Your task to perform on an android device: turn on data saver in the chrome app Image 0: 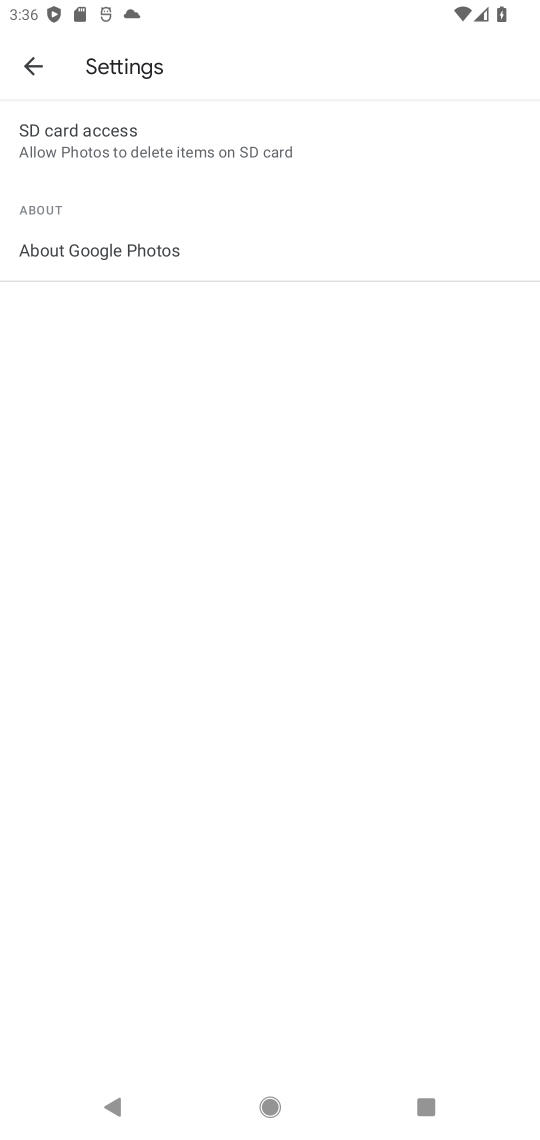
Step 0: press home button
Your task to perform on an android device: turn on data saver in the chrome app Image 1: 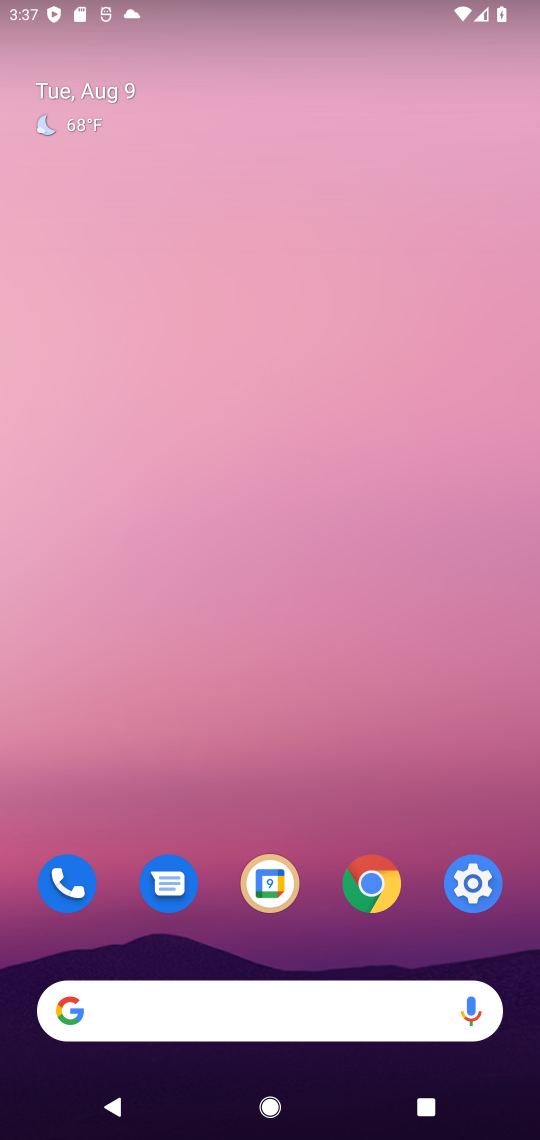
Step 1: click (370, 890)
Your task to perform on an android device: turn on data saver in the chrome app Image 2: 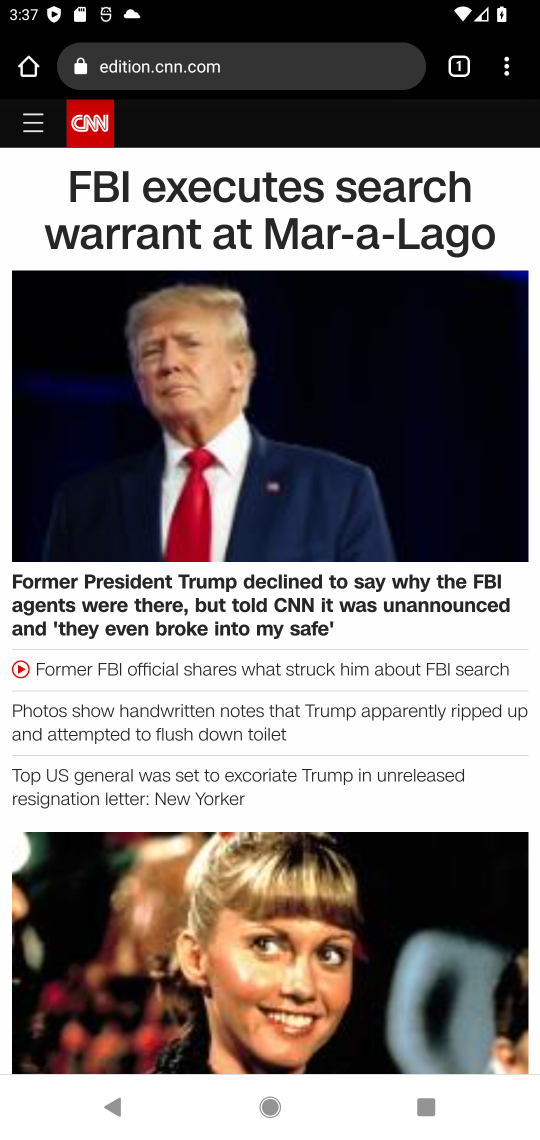
Step 2: click (505, 81)
Your task to perform on an android device: turn on data saver in the chrome app Image 3: 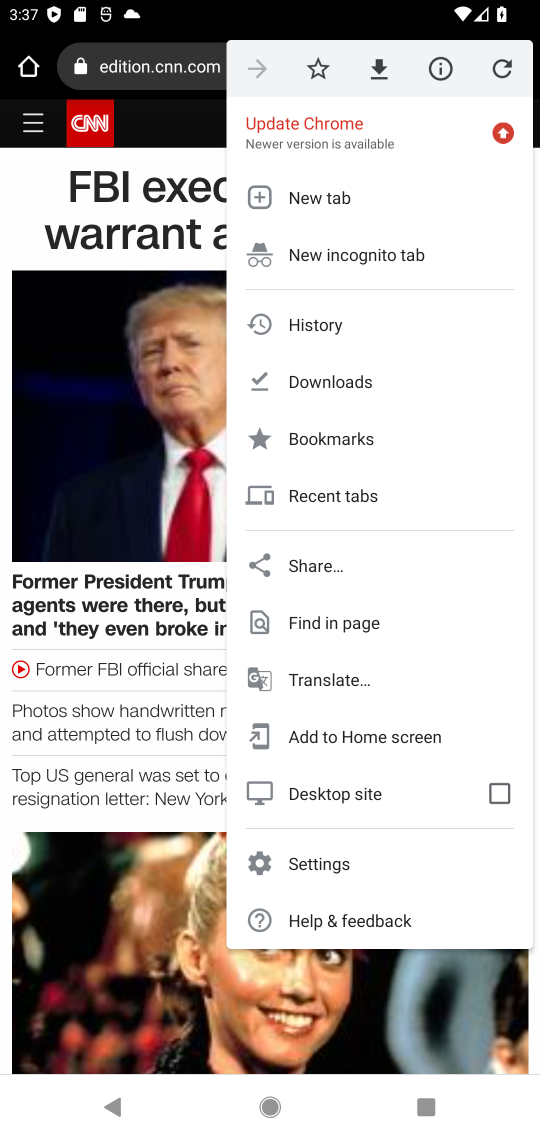
Step 3: click (320, 861)
Your task to perform on an android device: turn on data saver in the chrome app Image 4: 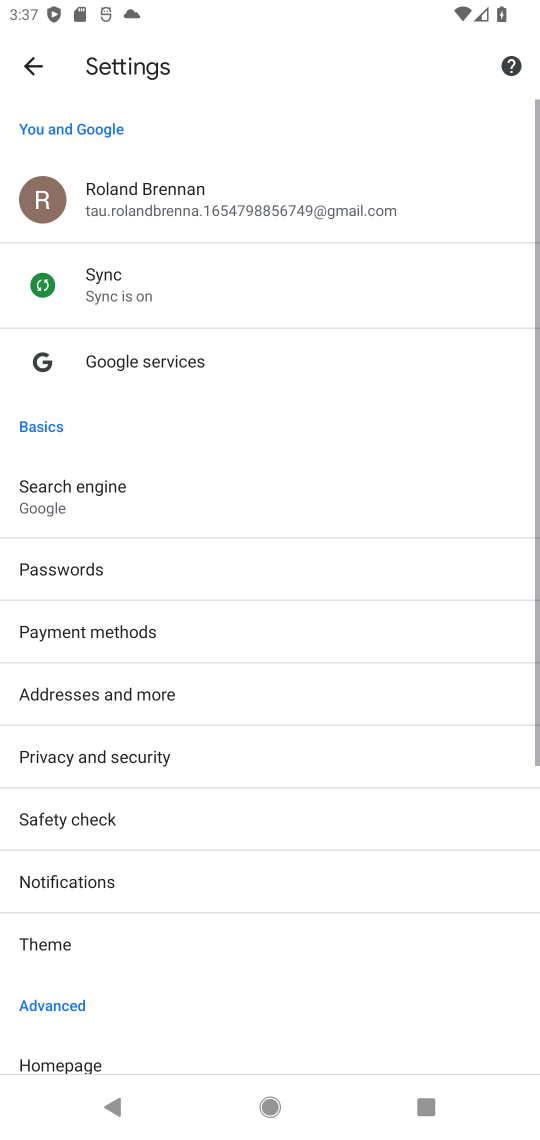
Step 4: drag from (186, 964) to (192, 618)
Your task to perform on an android device: turn on data saver in the chrome app Image 5: 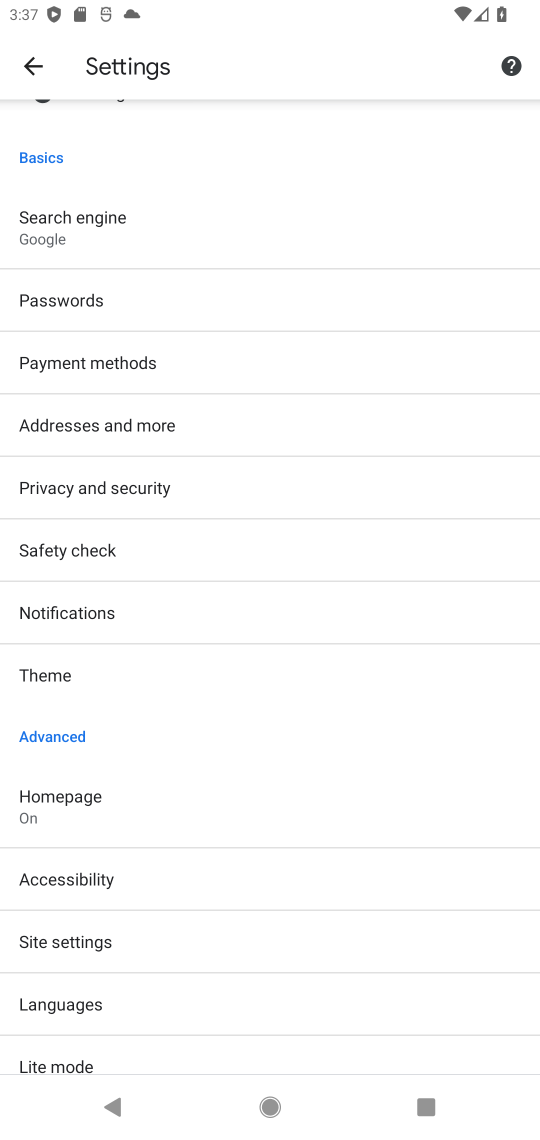
Step 5: click (80, 1060)
Your task to perform on an android device: turn on data saver in the chrome app Image 6: 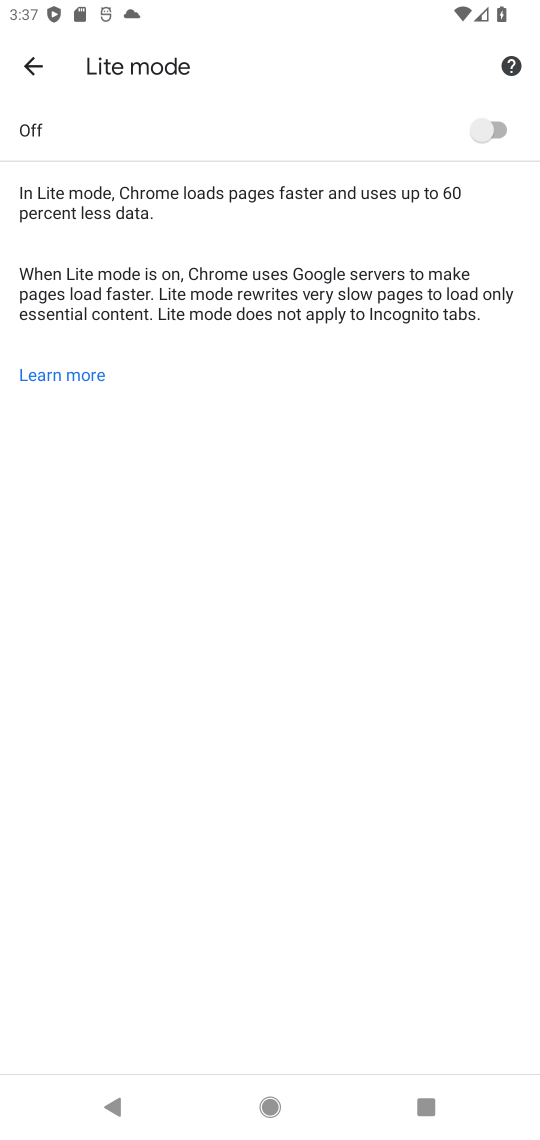
Step 6: click (491, 140)
Your task to perform on an android device: turn on data saver in the chrome app Image 7: 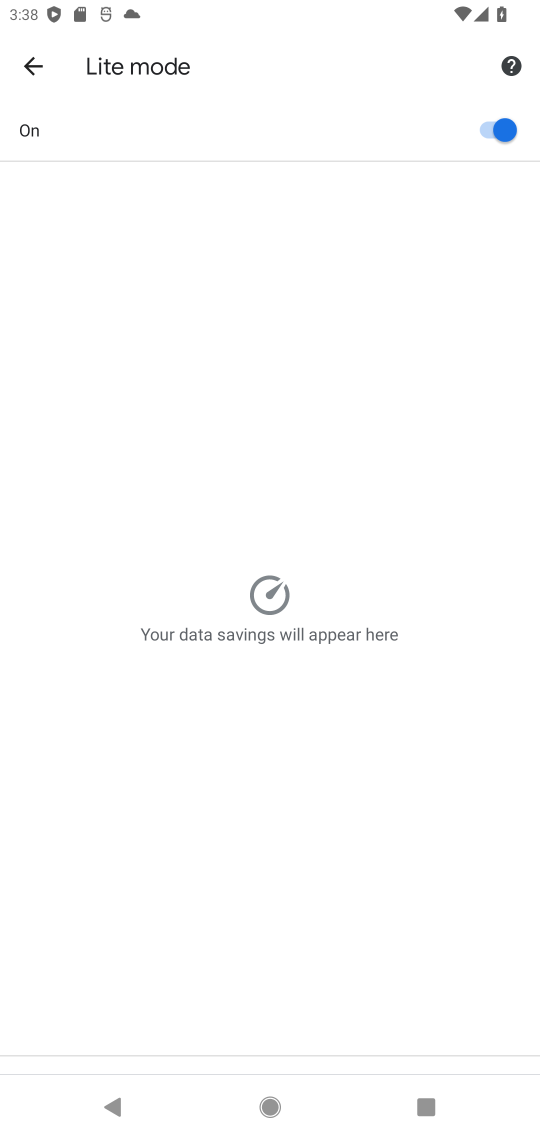
Step 7: task complete